Your task to perform on an android device: turn on sleep mode Image 0: 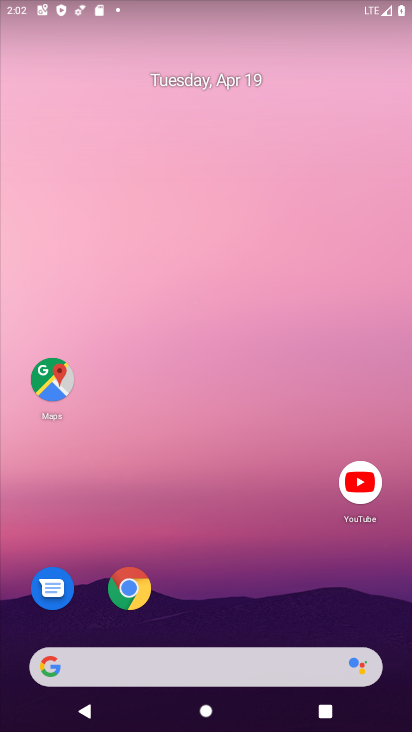
Step 0: drag from (209, 608) to (209, 138)
Your task to perform on an android device: turn on sleep mode Image 1: 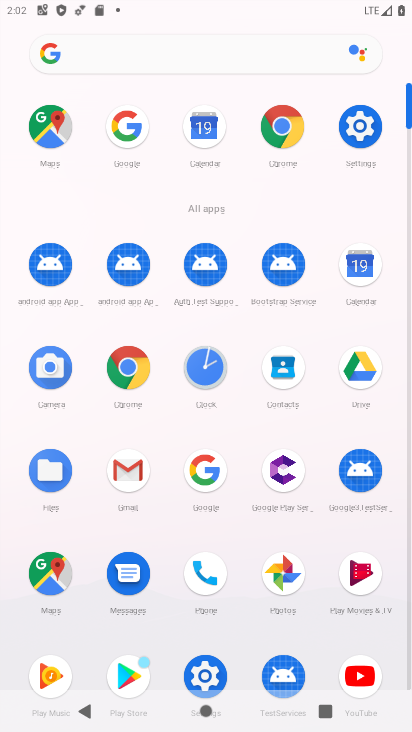
Step 1: click (360, 138)
Your task to perform on an android device: turn on sleep mode Image 2: 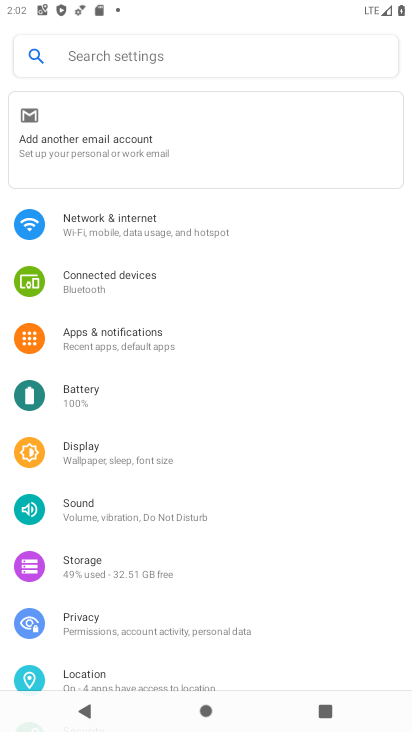
Step 2: click (90, 450)
Your task to perform on an android device: turn on sleep mode Image 3: 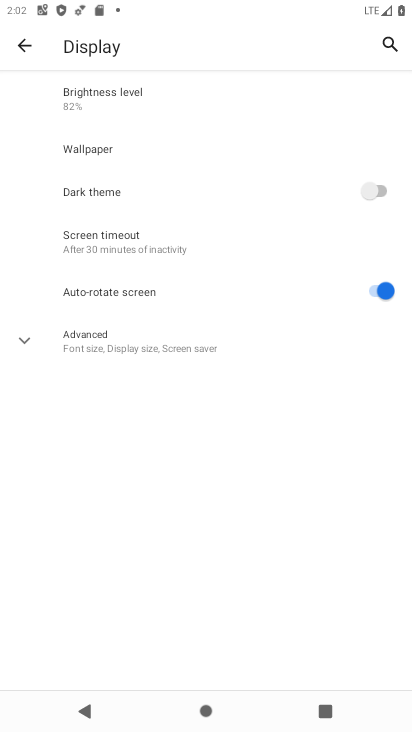
Step 3: click (28, 337)
Your task to perform on an android device: turn on sleep mode Image 4: 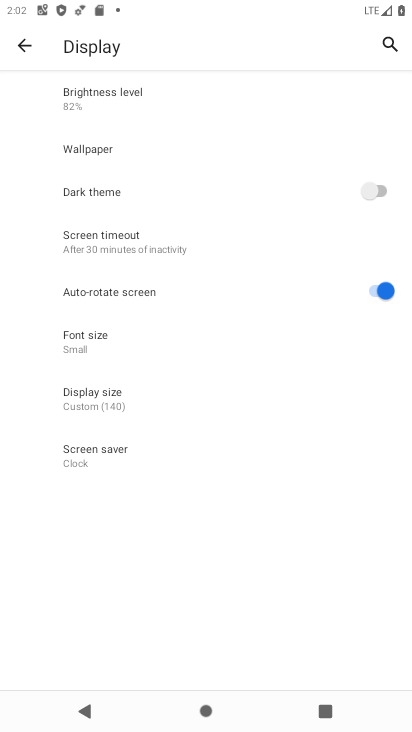
Step 4: task complete